Your task to perform on an android device: move a message to another label in the gmail app Image 0: 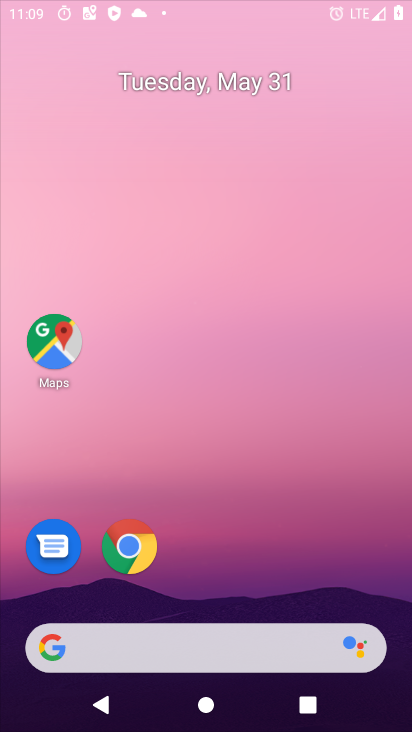
Step 0: drag from (269, 562) to (245, 338)
Your task to perform on an android device: move a message to another label in the gmail app Image 1: 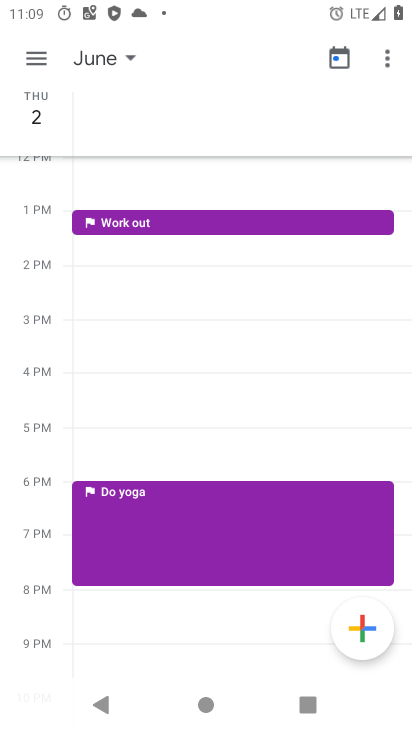
Step 1: press home button
Your task to perform on an android device: move a message to another label in the gmail app Image 2: 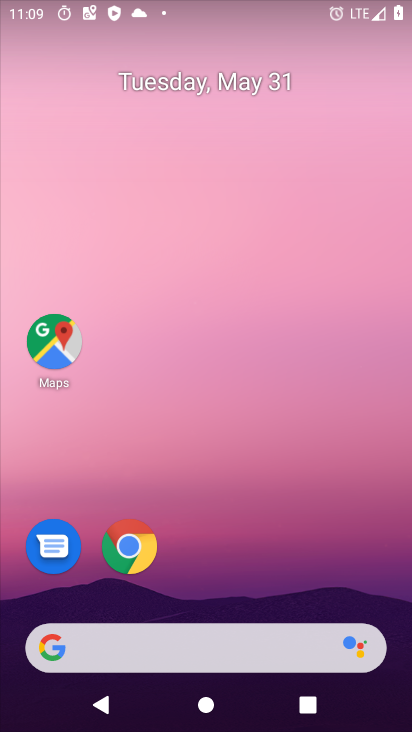
Step 2: drag from (250, 547) to (243, 177)
Your task to perform on an android device: move a message to another label in the gmail app Image 3: 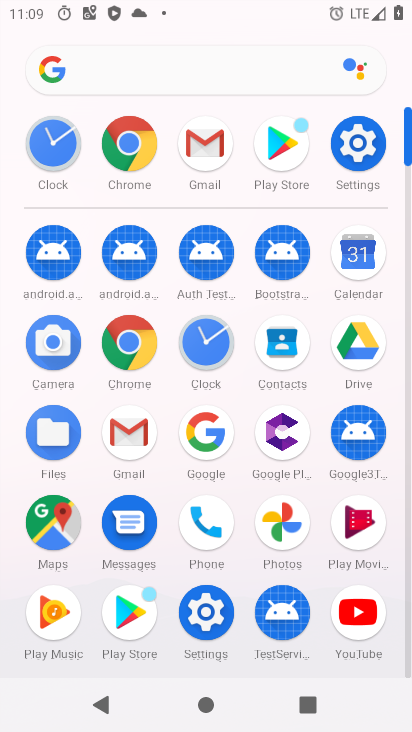
Step 3: click (122, 438)
Your task to perform on an android device: move a message to another label in the gmail app Image 4: 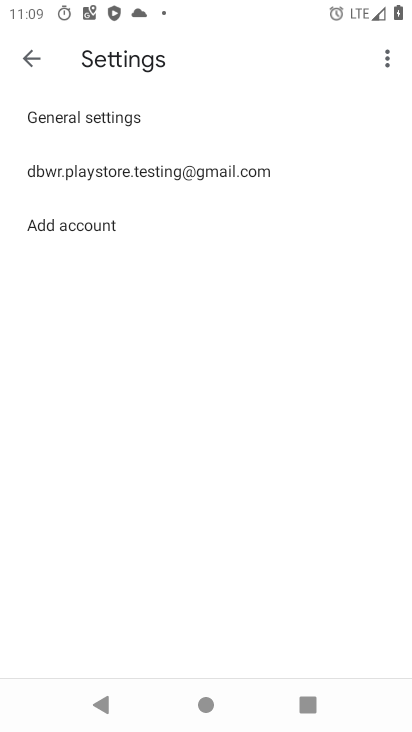
Step 4: click (125, 116)
Your task to perform on an android device: move a message to another label in the gmail app Image 5: 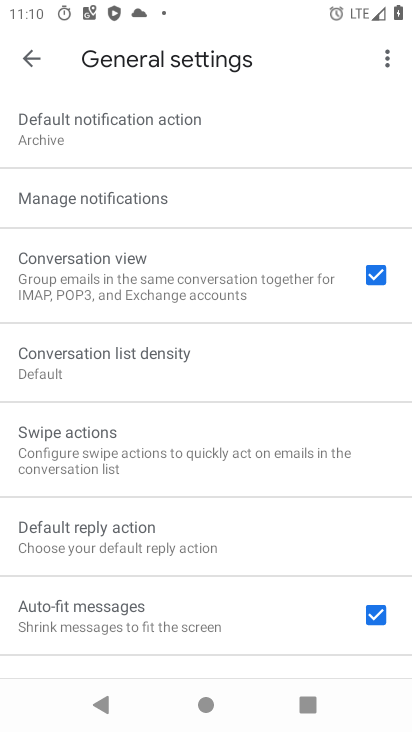
Step 5: task complete